Your task to perform on an android device: Go to CNN.com Image 0: 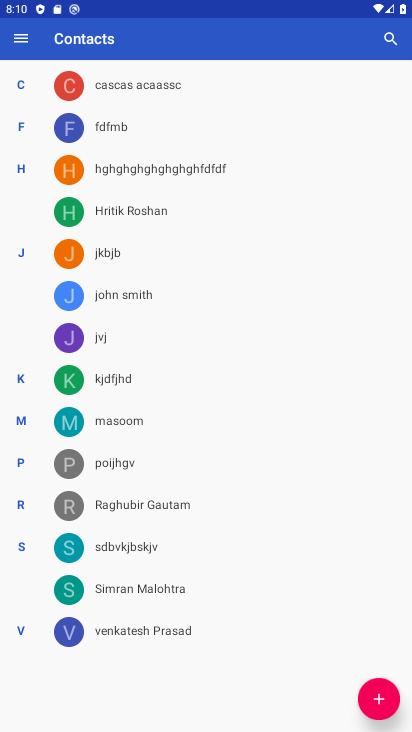
Step 0: press home button
Your task to perform on an android device: Go to CNN.com Image 1: 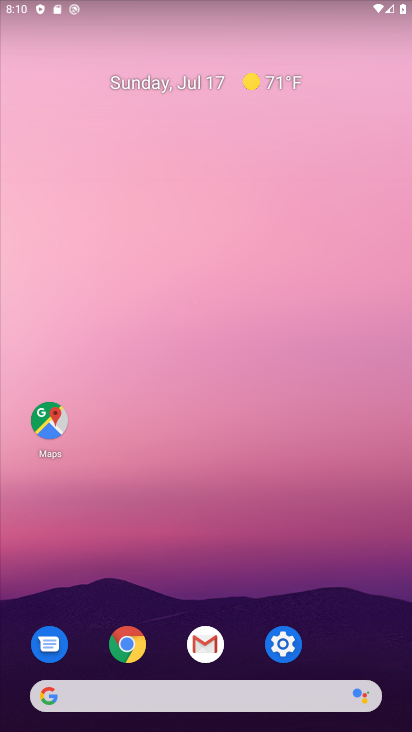
Step 1: click (132, 641)
Your task to perform on an android device: Go to CNN.com Image 2: 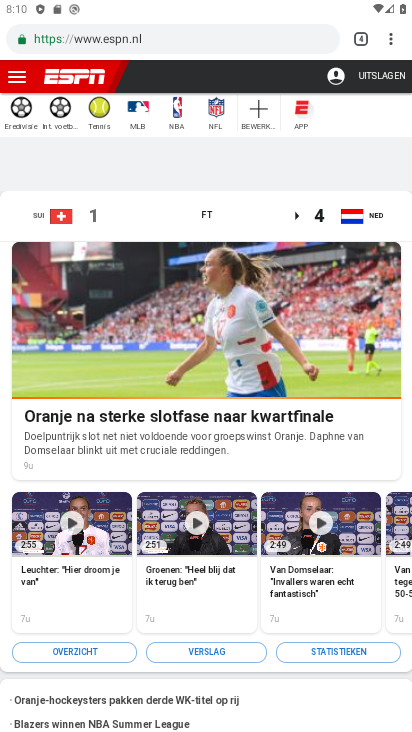
Step 2: click (147, 45)
Your task to perform on an android device: Go to CNN.com Image 3: 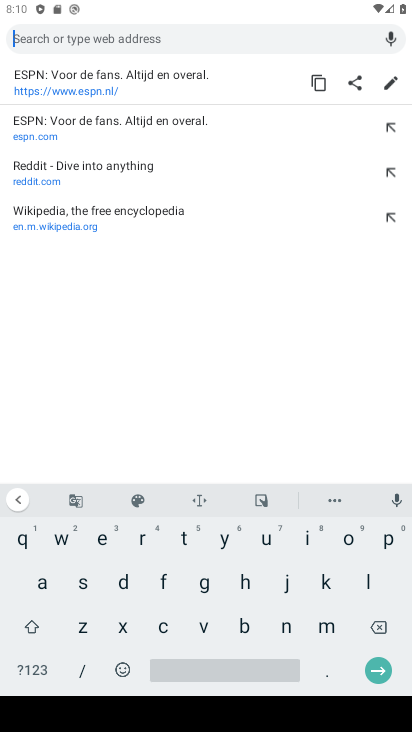
Step 3: click (156, 632)
Your task to perform on an android device: Go to CNN.com Image 4: 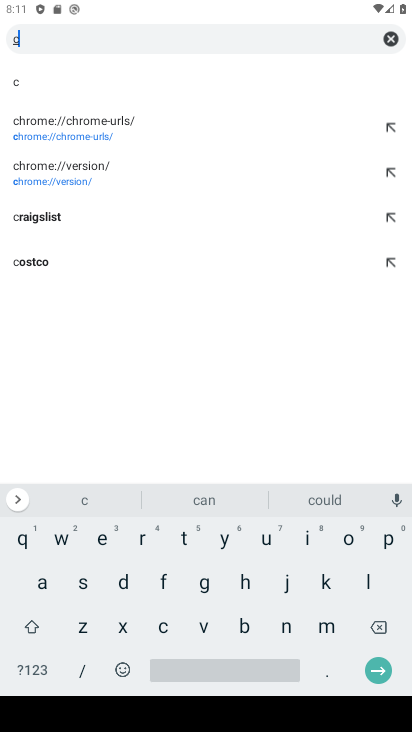
Step 4: click (280, 626)
Your task to perform on an android device: Go to CNN.com Image 5: 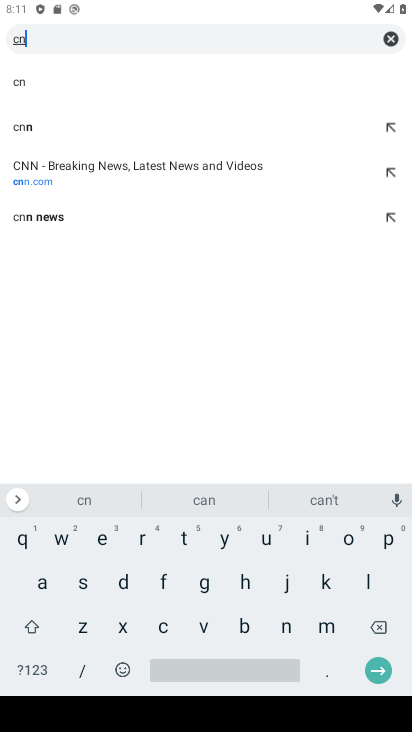
Step 5: click (285, 628)
Your task to perform on an android device: Go to CNN.com Image 6: 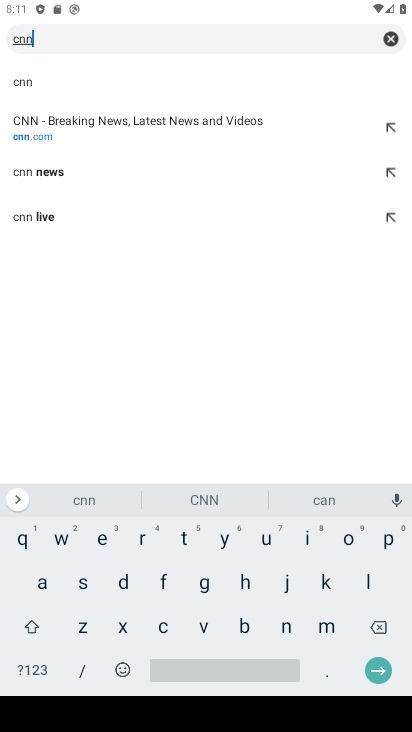
Step 6: click (371, 665)
Your task to perform on an android device: Go to CNN.com Image 7: 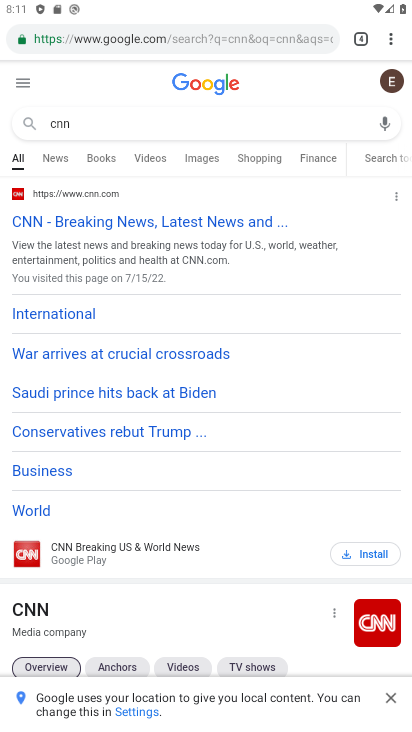
Step 7: click (50, 229)
Your task to perform on an android device: Go to CNN.com Image 8: 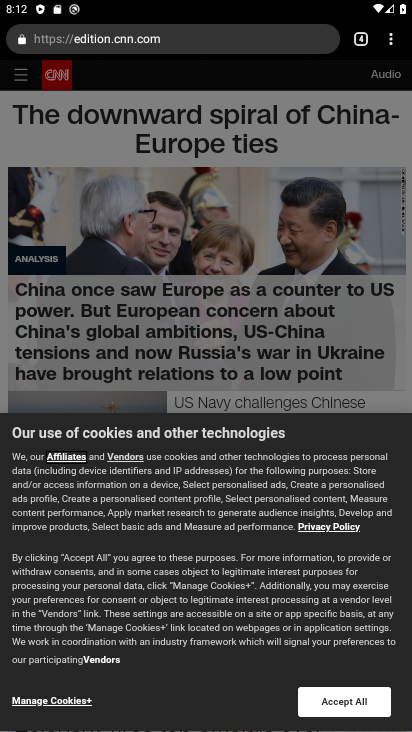
Step 8: task complete